Your task to perform on an android device: change the clock display to show seconds Image 0: 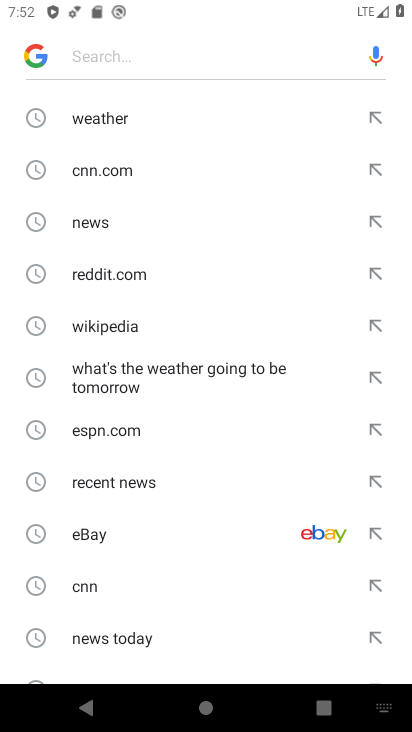
Step 0: press home button
Your task to perform on an android device: change the clock display to show seconds Image 1: 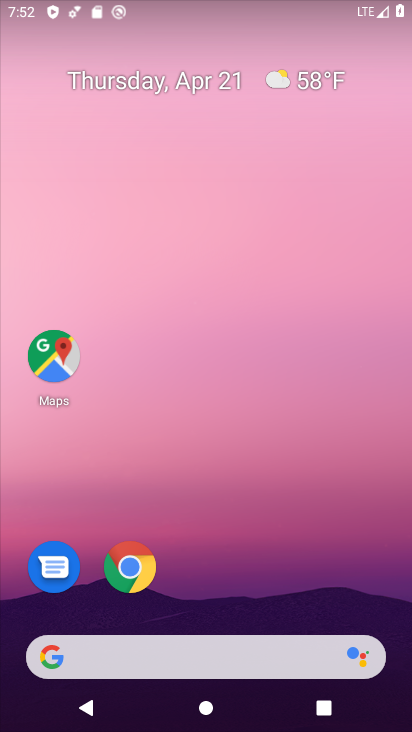
Step 1: drag from (243, 603) to (257, 35)
Your task to perform on an android device: change the clock display to show seconds Image 2: 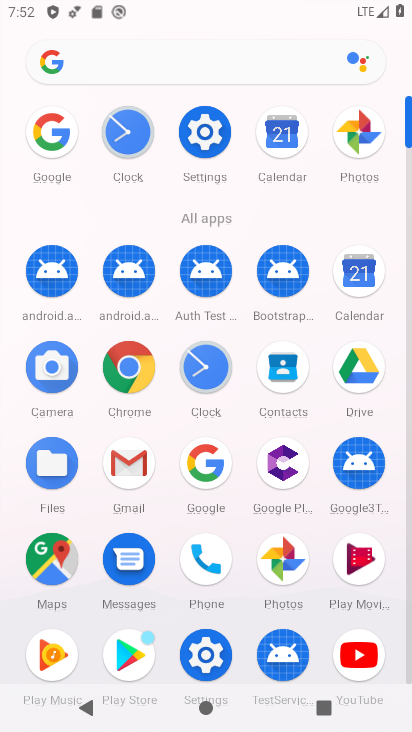
Step 2: click (125, 130)
Your task to perform on an android device: change the clock display to show seconds Image 3: 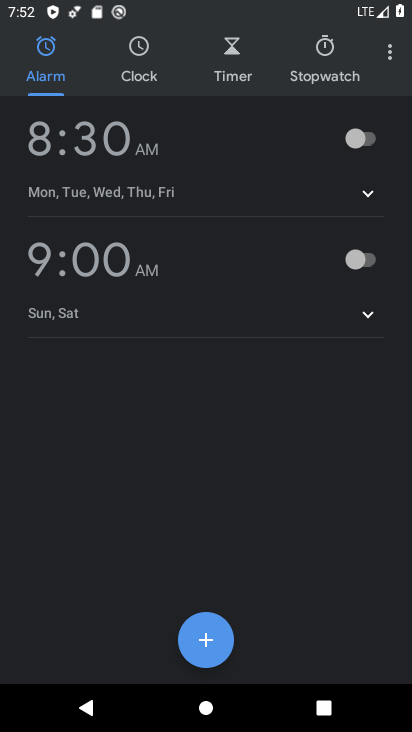
Step 3: click (391, 54)
Your task to perform on an android device: change the clock display to show seconds Image 4: 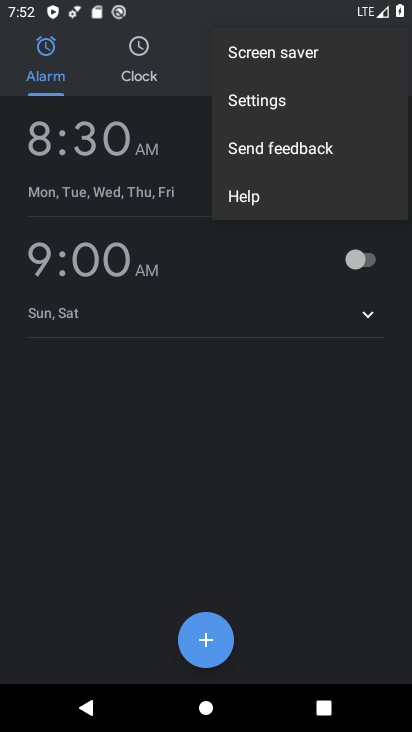
Step 4: click (274, 100)
Your task to perform on an android device: change the clock display to show seconds Image 5: 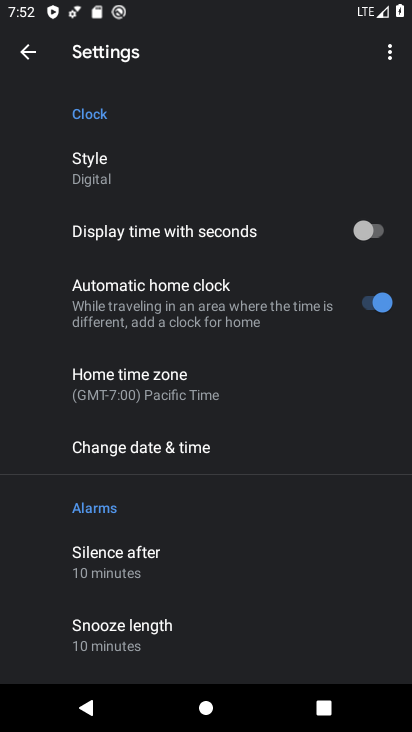
Step 5: click (379, 234)
Your task to perform on an android device: change the clock display to show seconds Image 6: 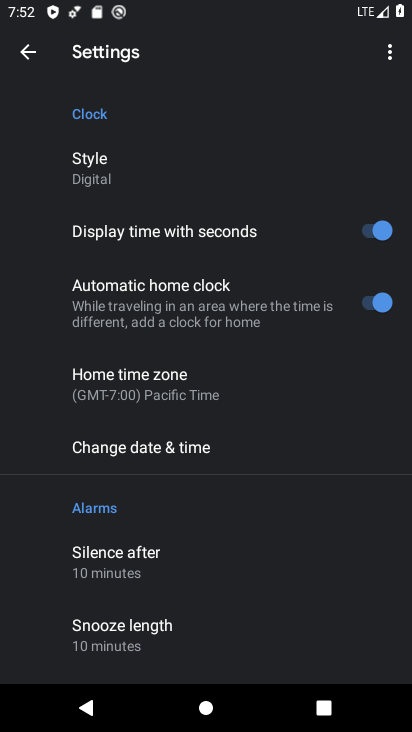
Step 6: task complete